Your task to perform on an android device: toggle airplane mode Image 0: 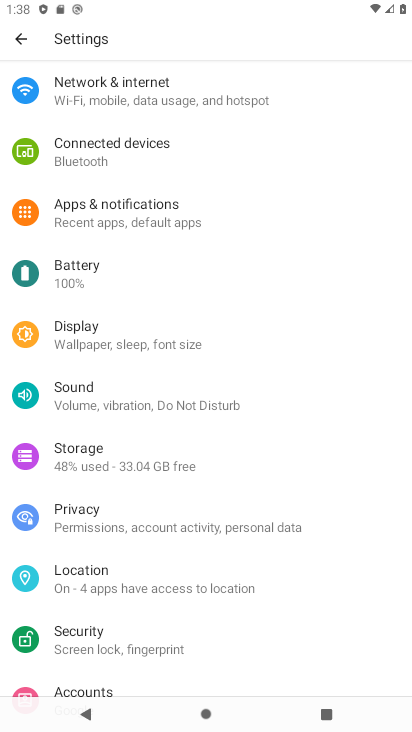
Step 0: drag from (126, 234) to (101, 454)
Your task to perform on an android device: toggle airplane mode Image 1: 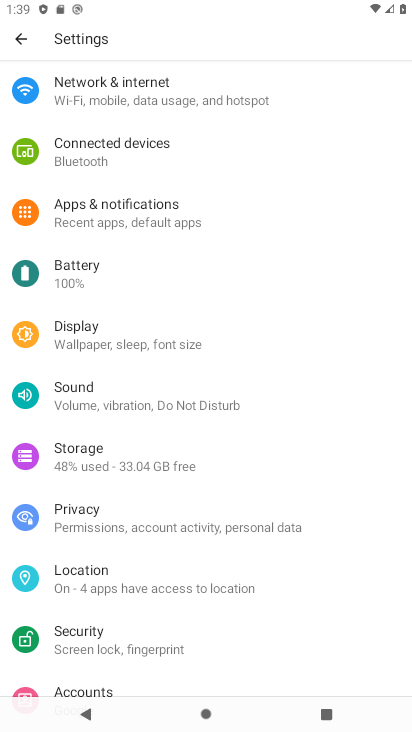
Step 1: click (100, 79)
Your task to perform on an android device: toggle airplane mode Image 2: 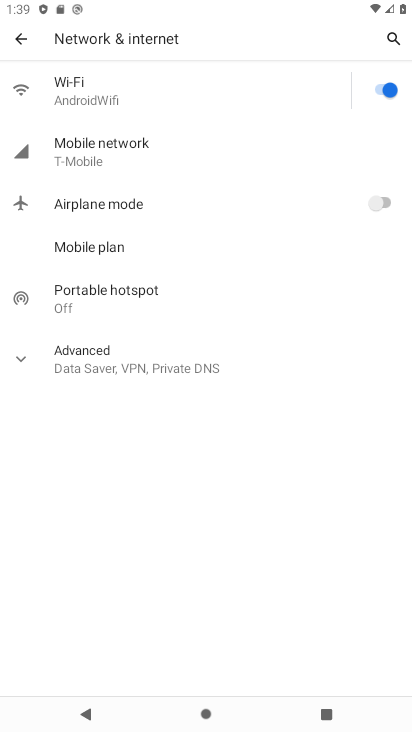
Step 2: task complete